Your task to perform on an android device: turn on bluetooth scan Image 0: 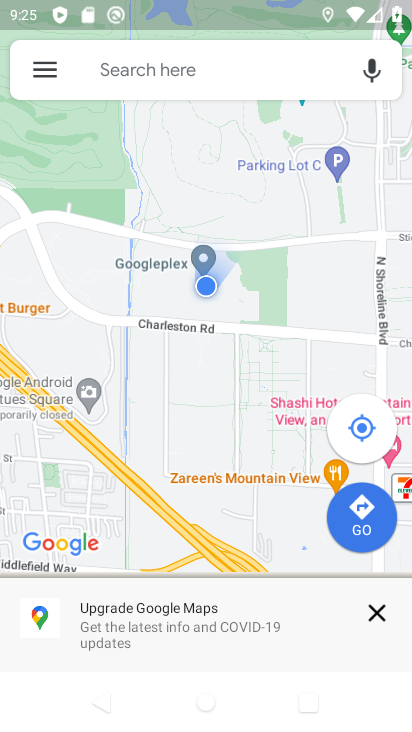
Step 0: press home button
Your task to perform on an android device: turn on bluetooth scan Image 1: 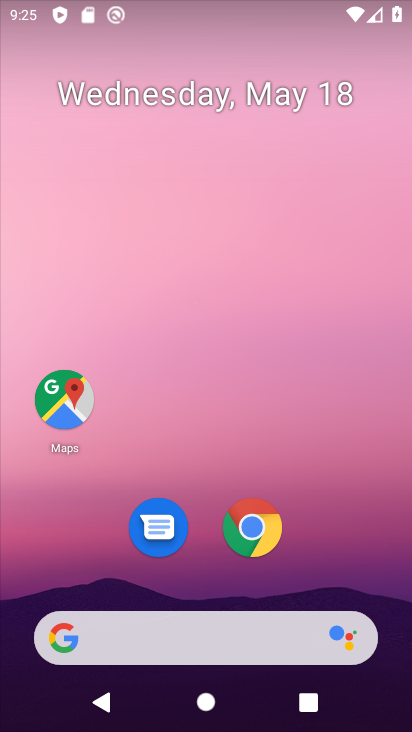
Step 1: drag from (311, 559) to (311, 82)
Your task to perform on an android device: turn on bluetooth scan Image 2: 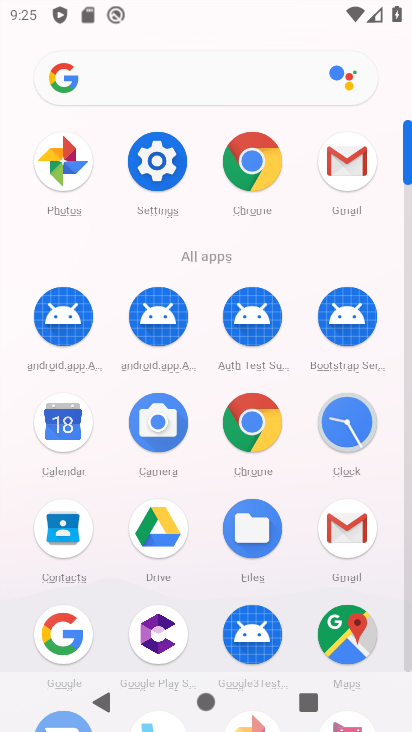
Step 2: click (161, 164)
Your task to perform on an android device: turn on bluetooth scan Image 3: 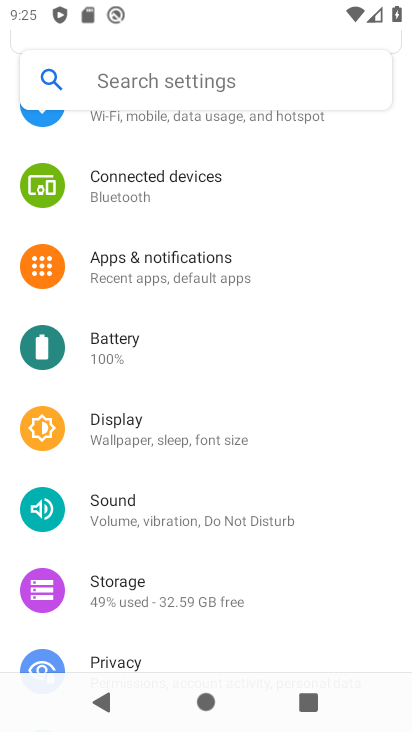
Step 3: drag from (253, 548) to (306, 268)
Your task to perform on an android device: turn on bluetooth scan Image 4: 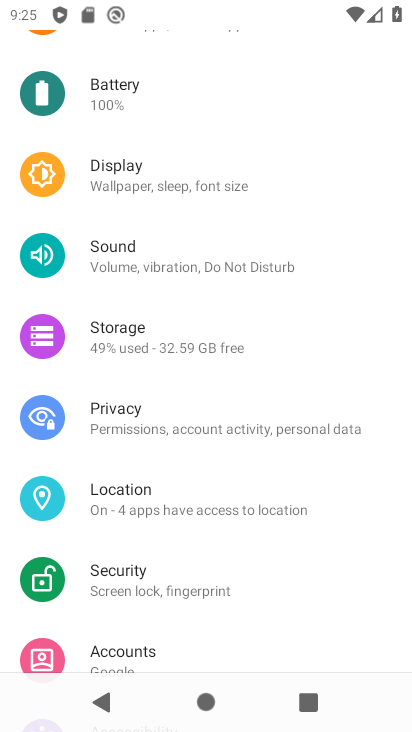
Step 4: drag from (198, 575) to (272, 184)
Your task to perform on an android device: turn on bluetooth scan Image 5: 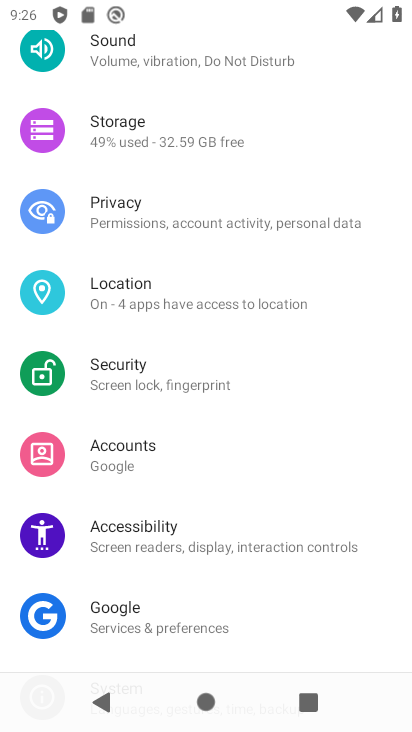
Step 5: drag from (245, 569) to (266, 233)
Your task to perform on an android device: turn on bluetooth scan Image 6: 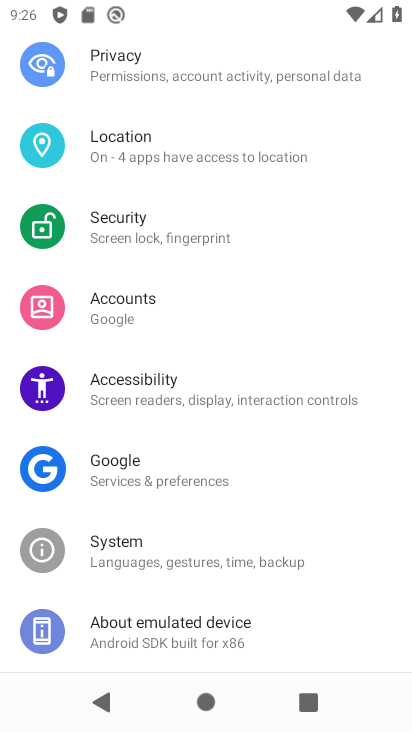
Step 6: click (231, 161)
Your task to perform on an android device: turn on bluetooth scan Image 7: 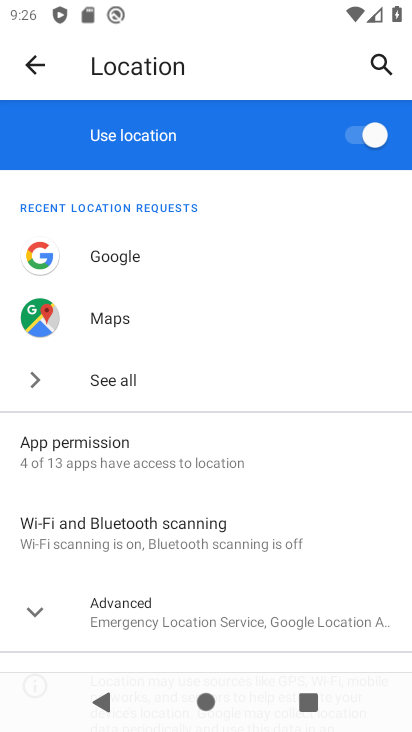
Step 7: click (218, 535)
Your task to perform on an android device: turn on bluetooth scan Image 8: 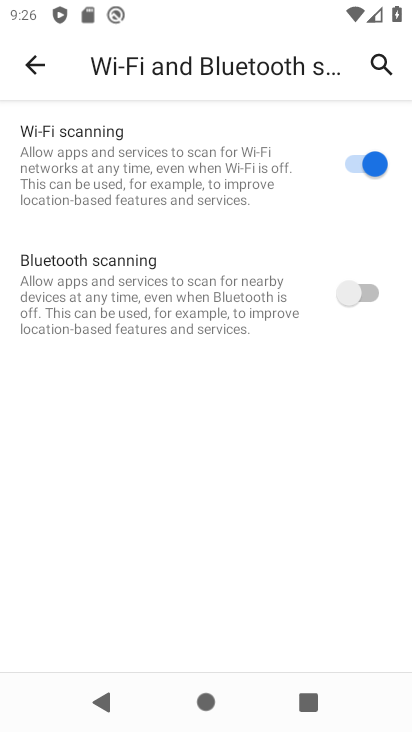
Step 8: click (362, 288)
Your task to perform on an android device: turn on bluetooth scan Image 9: 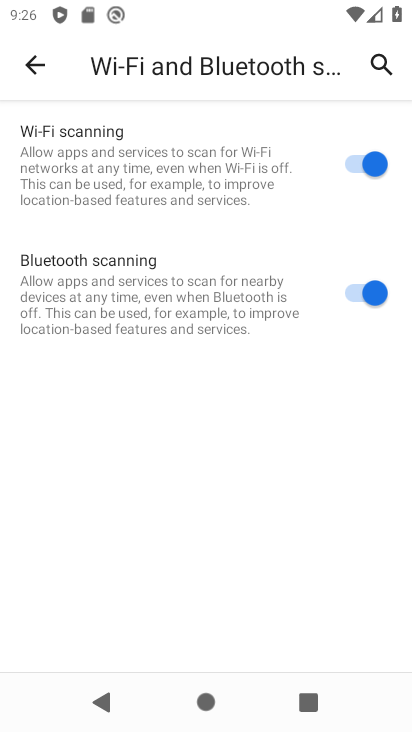
Step 9: task complete